Your task to perform on an android device: What's on my calendar today? Image 0: 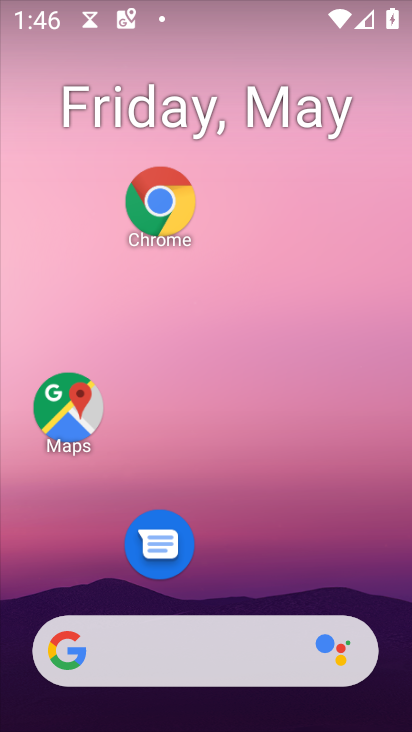
Step 0: drag from (232, 580) to (214, 281)
Your task to perform on an android device: What's on my calendar today? Image 1: 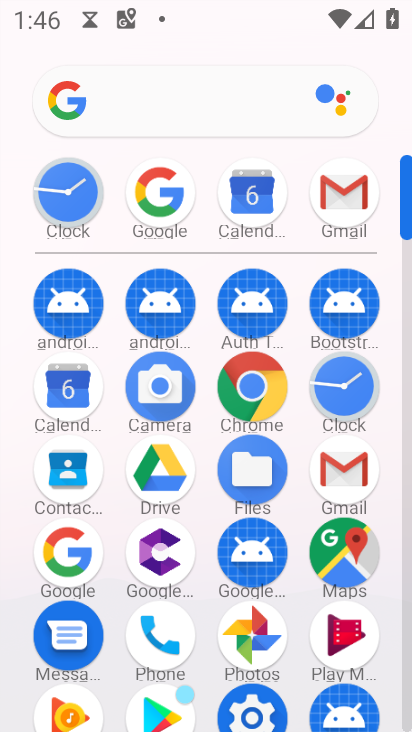
Step 1: click (75, 415)
Your task to perform on an android device: What's on my calendar today? Image 2: 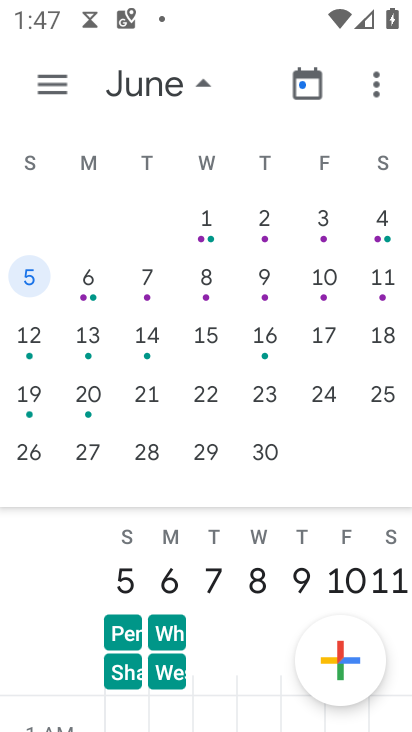
Step 2: drag from (40, 264) to (376, 236)
Your task to perform on an android device: What's on my calendar today? Image 3: 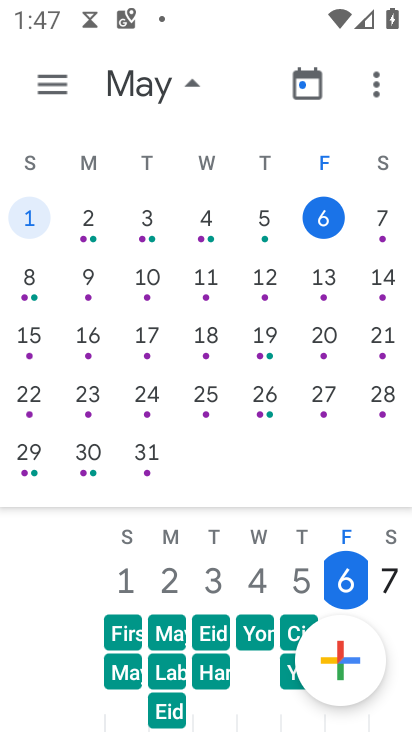
Step 3: click (204, 96)
Your task to perform on an android device: What's on my calendar today? Image 4: 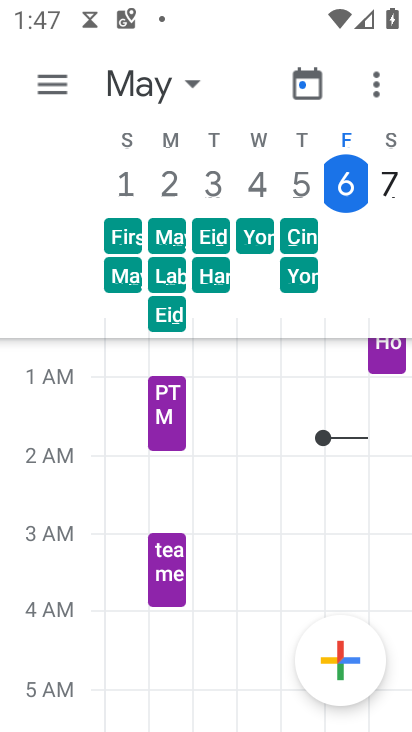
Step 4: click (63, 87)
Your task to perform on an android device: What's on my calendar today? Image 5: 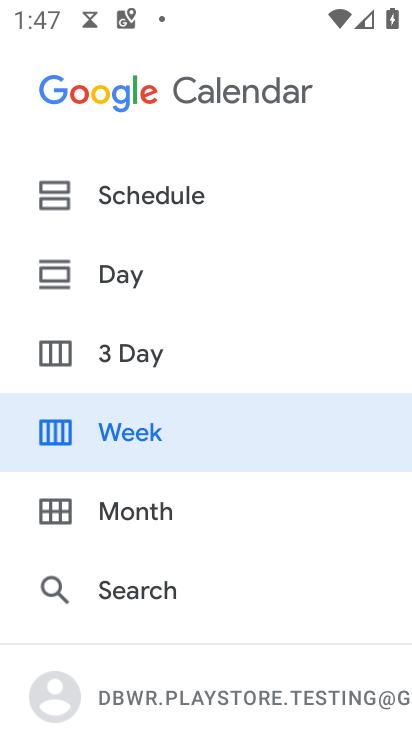
Step 5: click (134, 269)
Your task to perform on an android device: What's on my calendar today? Image 6: 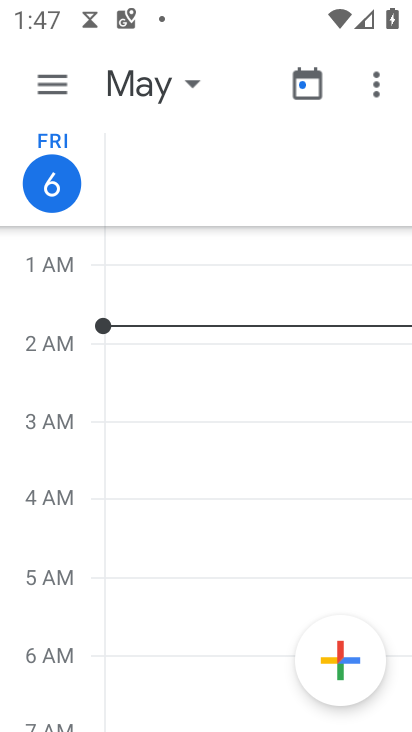
Step 6: task complete